Your task to perform on an android device: Open Reddit.com Image 0: 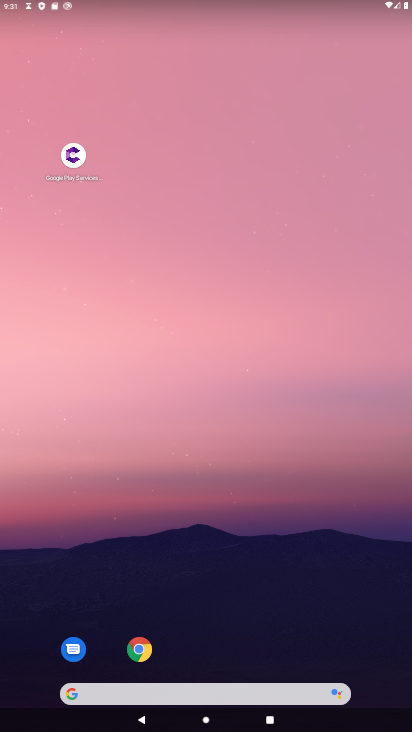
Step 0: click (136, 647)
Your task to perform on an android device: Open Reddit.com Image 1: 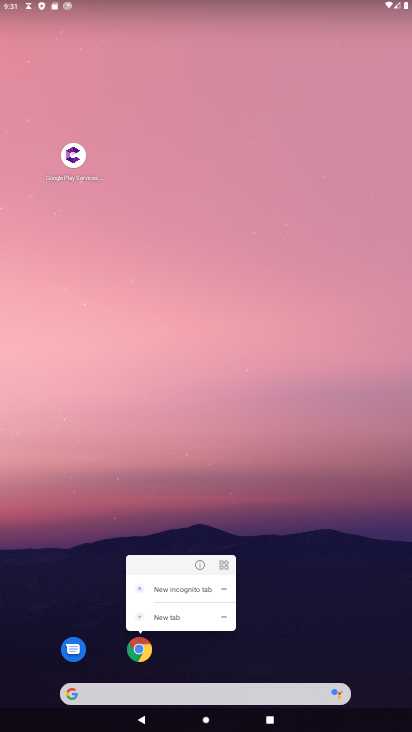
Step 1: click (142, 644)
Your task to perform on an android device: Open Reddit.com Image 2: 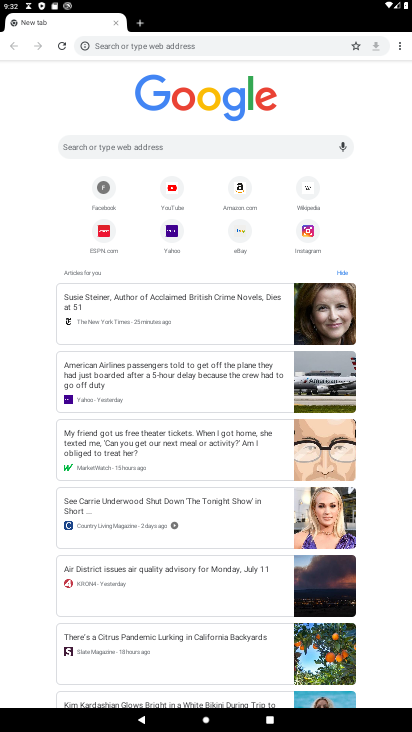
Step 2: click (196, 149)
Your task to perform on an android device: Open Reddit.com Image 3: 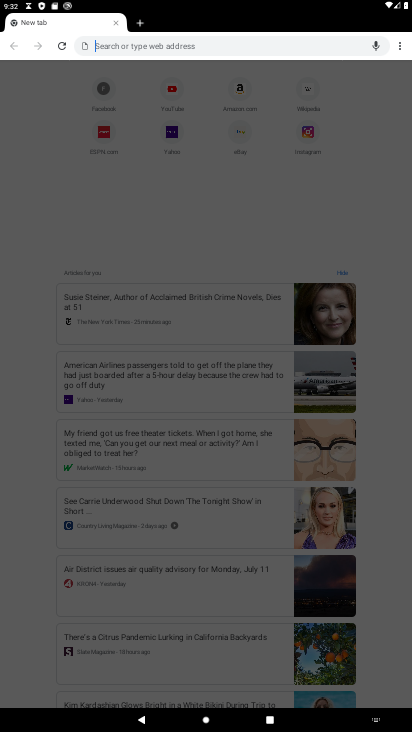
Step 3: type "reddit.com"
Your task to perform on an android device: Open Reddit.com Image 4: 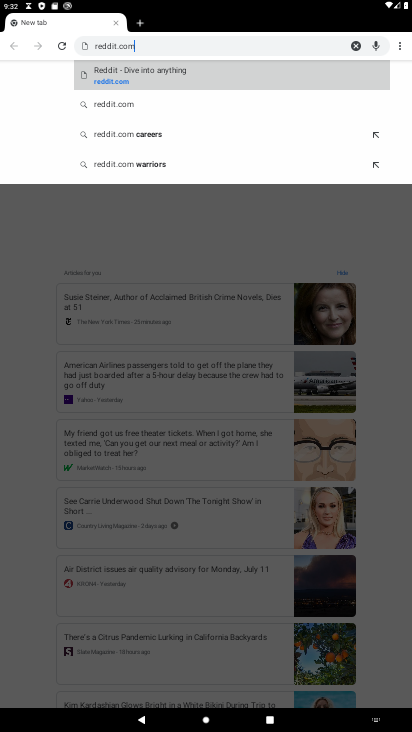
Step 4: click (144, 74)
Your task to perform on an android device: Open Reddit.com Image 5: 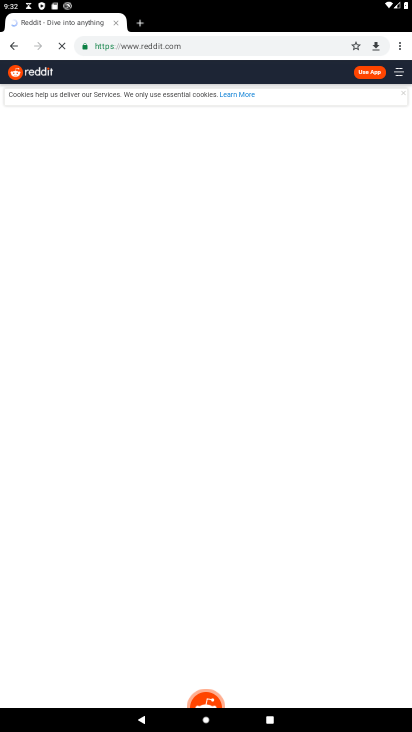
Step 5: task complete